Your task to perform on an android device: clear all cookies in the chrome app Image 0: 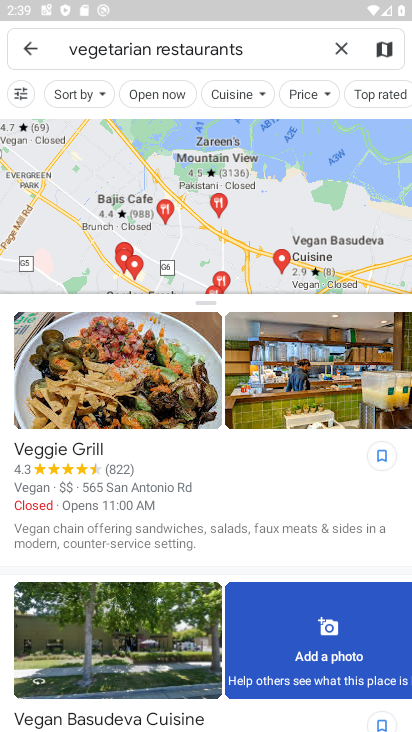
Step 0: press home button
Your task to perform on an android device: clear all cookies in the chrome app Image 1: 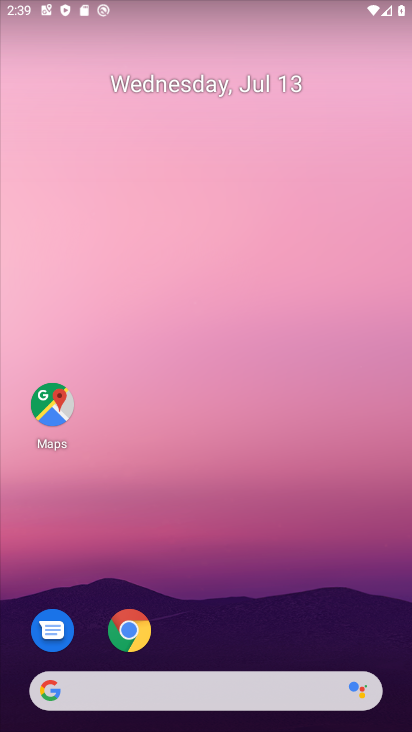
Step 1: click (128, 628)
Your task to perform on an android device: clear all cookies in the chrome app Image 2: 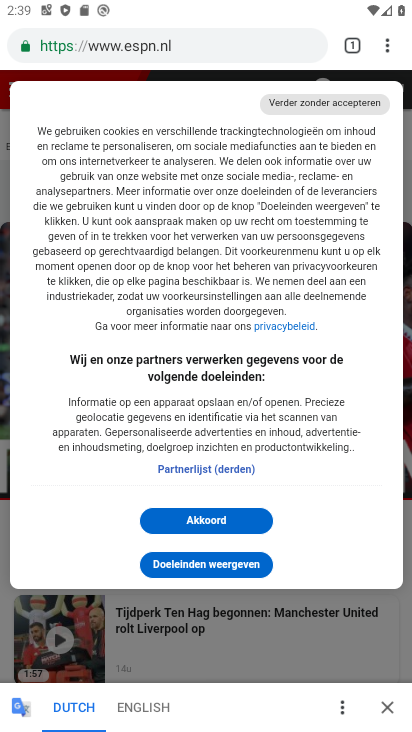
Step 2: click (385, 43)
Your task to perform on an android device: clear all cookies in the chrome app Image 3: 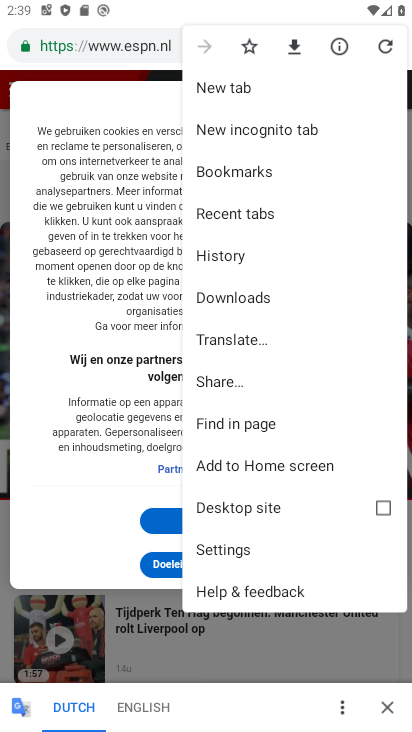
Step 3: click (242, 255)
Your task to perform on an android device: clear all cookies in the chrome app Image 4: 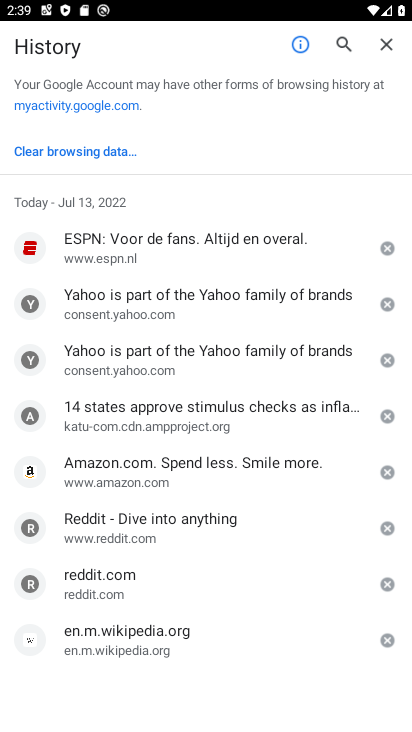
Step 4: click (88, 148)
Your task to perform on an android device: clear all cookies in the chrome app Image 5: 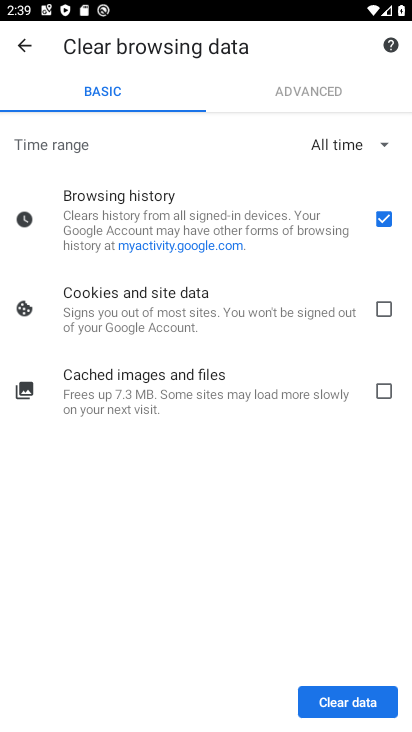
Step 5: click (385, 306)
Your task to perform on an android device: clear all cookies in the chrome app Image 6: 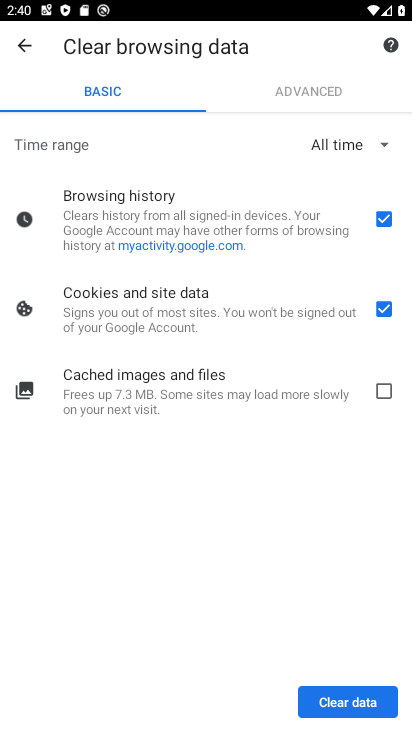
Step 6: click (384, 221)
Your task to perform on an android device: clear all cookies in the chrome app Image 7: 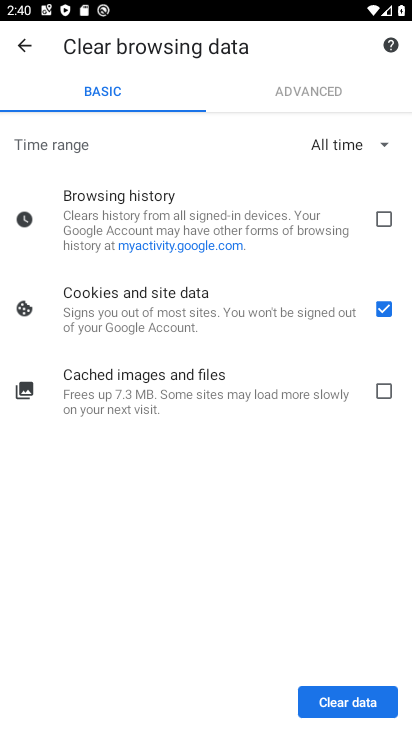
Step 7: click (381, 695)
Your task to perform on an android device: clear all cookies in the chrome app Image 8: 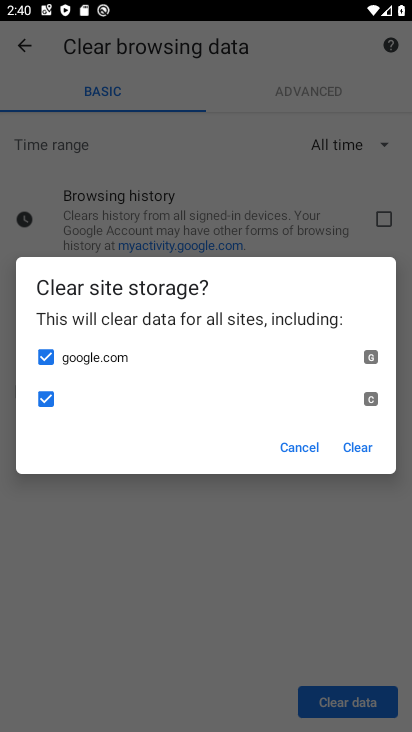
Step 8: click (355, 444)
Your task to perform on an android device: clear all cookies in the chrome app Image 9: 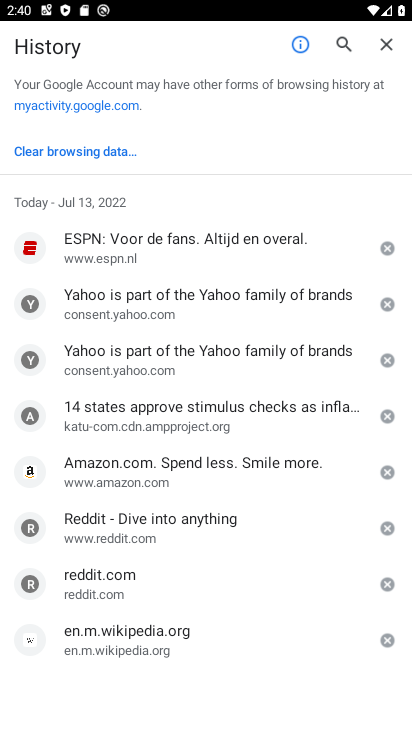
Step 9: task complete